Your task to perform on an android device: Turn off the flashlight Image 0: 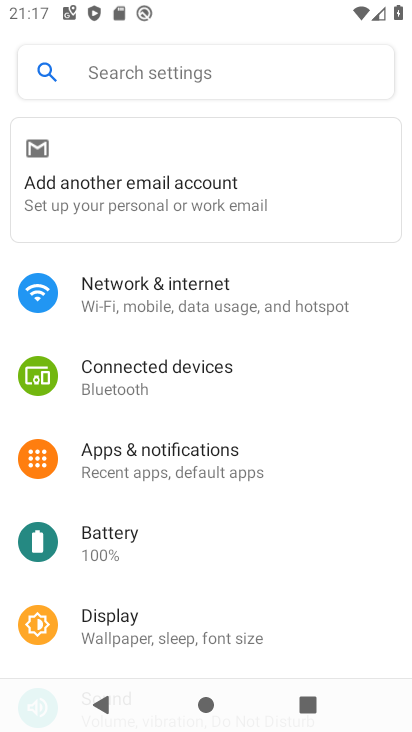
Step 0: click (220, 80)
Your task to perform on an android device: Turn off the flashlight Image 1: 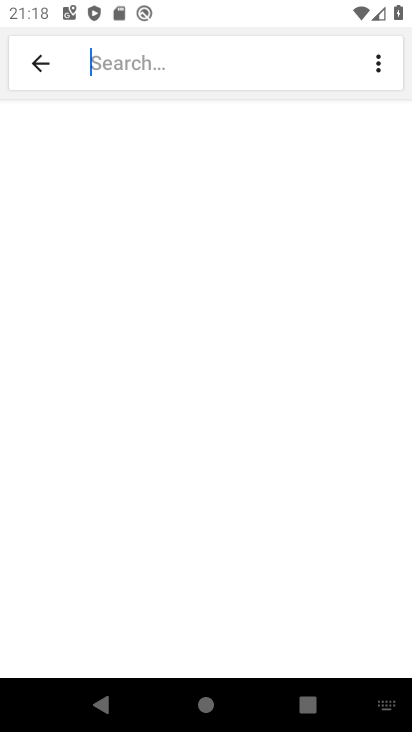
Step 1: type "flashlight"
Your task to perform on an android device: Turn off the flashlight Image 2: 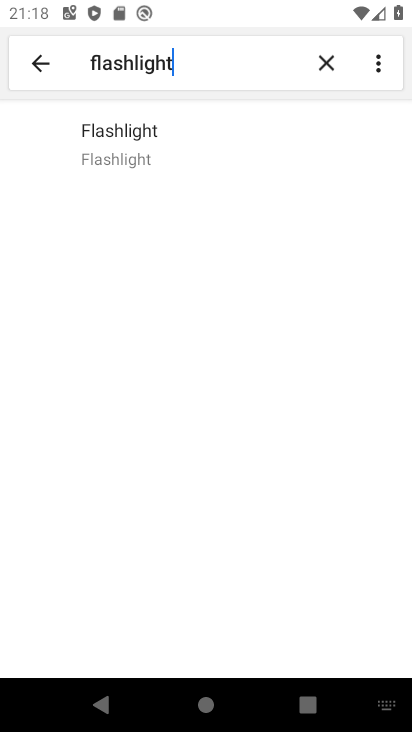
Step 2: click (186, 153)
Your task to perform on an android device: Turn off the flashlight Image 3: 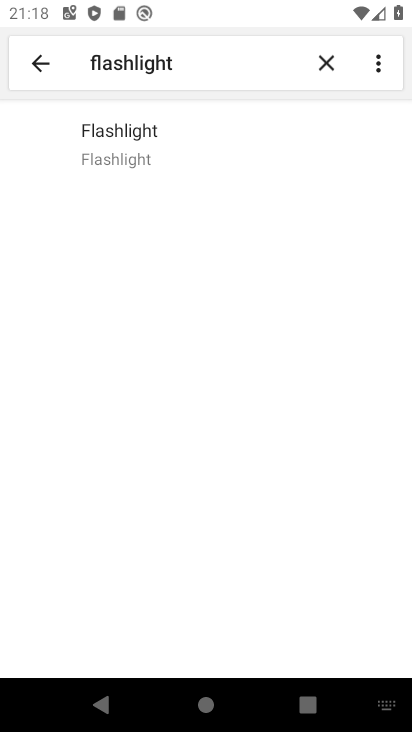
Step 3: task complete